Your task to perform on an android device: What's the weather going to be tomorrow? Image 0: 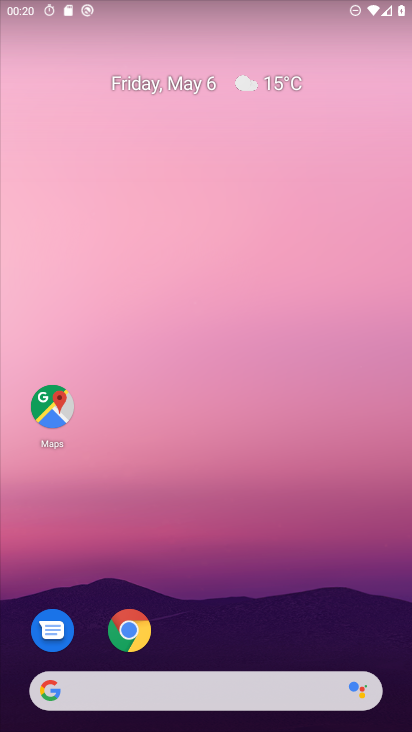
Step 0: click (291, 92)
Your task to perform on an android device: What's the weather going to be tomorrow? Image 1: 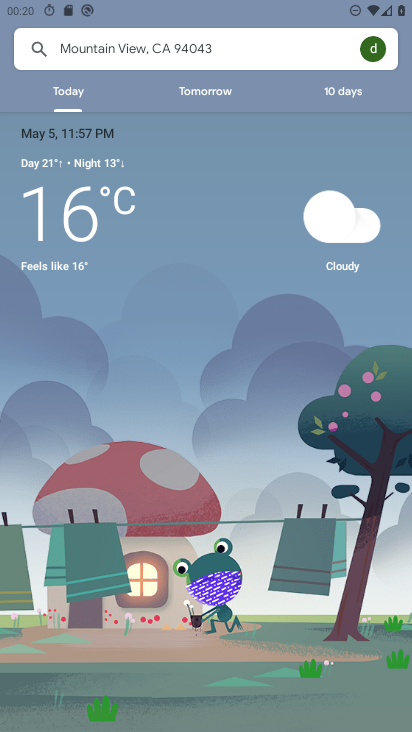
Step 1: click (214, 88)
Your task to perform on an android device: What's the weather going to be tomorrow? Image 2: 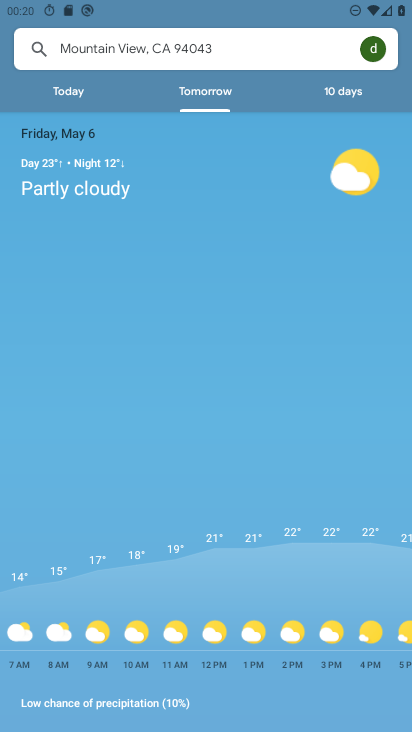
Step 2: task complete